Your task to perform on an android device: Toggle the flashlight Image 0: 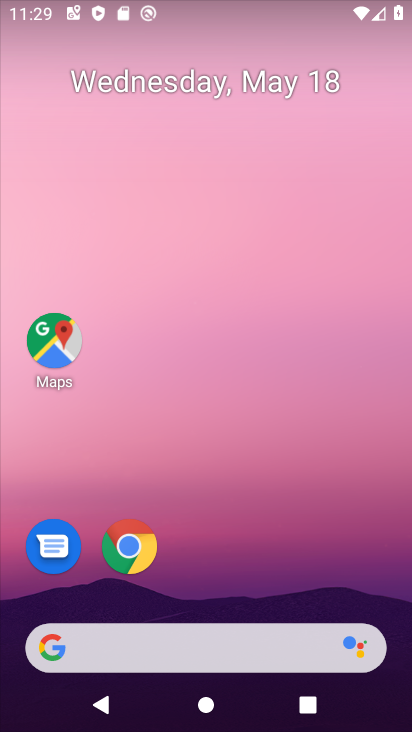
Step 0: drag from (273, 585) to (310, 69)
Your task to perform on an android device: Toggle the flashlight Image 1: 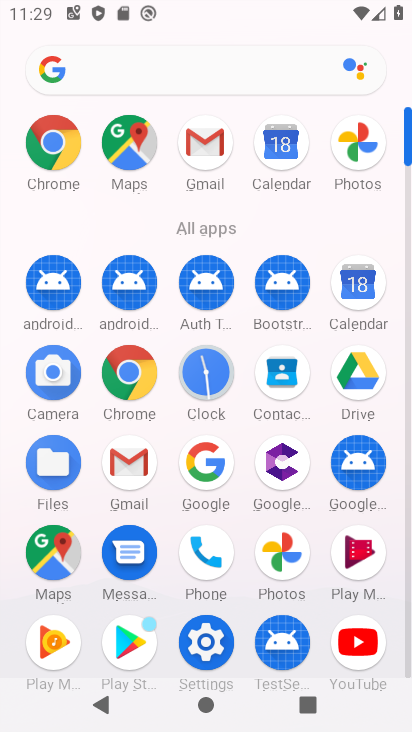
Step 1: click (200, 635)
Your task to perform on an android device: Toggle the flashlight Image 2: 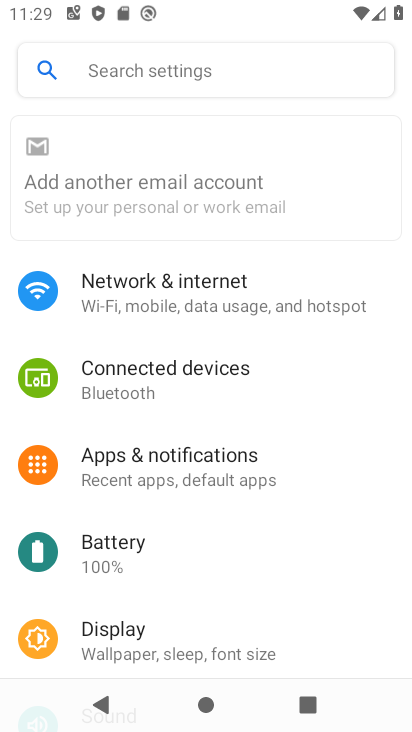
Step 2: click (180, 77)
Your task to perform on an android device: Toggle the flashlight Image 3: 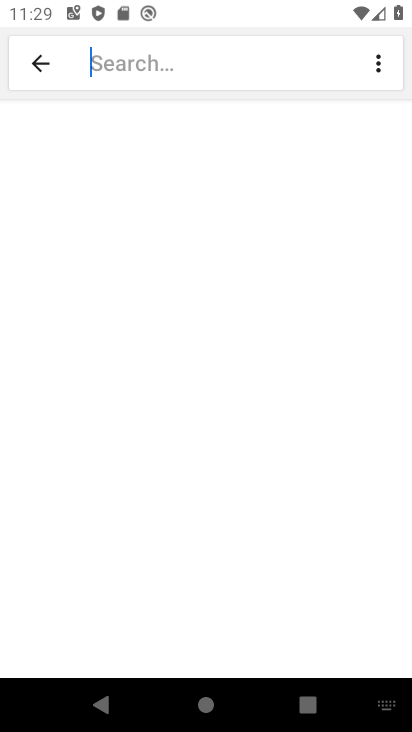
Step 3: type "flash"
Your task to perform on an android device: Toggle the flashlight Image 4: 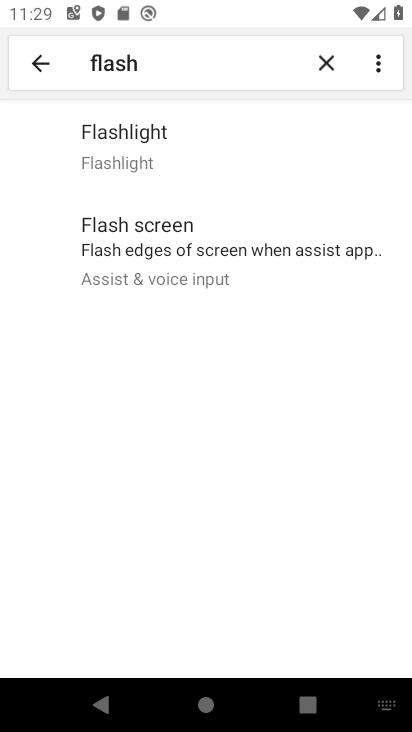
Step 4: task complete